Your task to perform on an android device: Open Google Chrome Image 0: 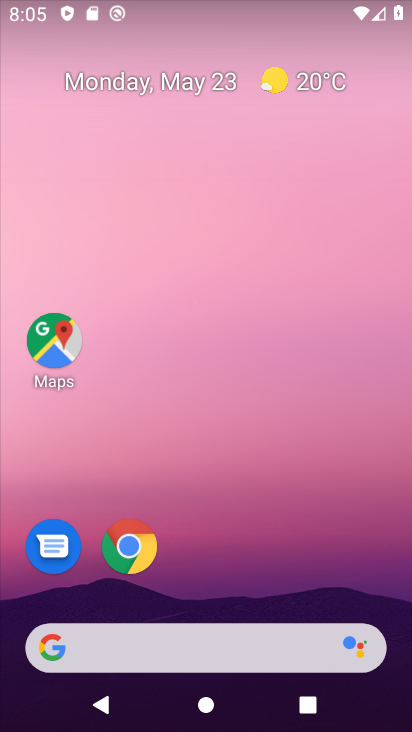
Step 0: drag from (230, 532) to (0, 539)
Your task to perform on an android device: Open Google Chrome Image 1: 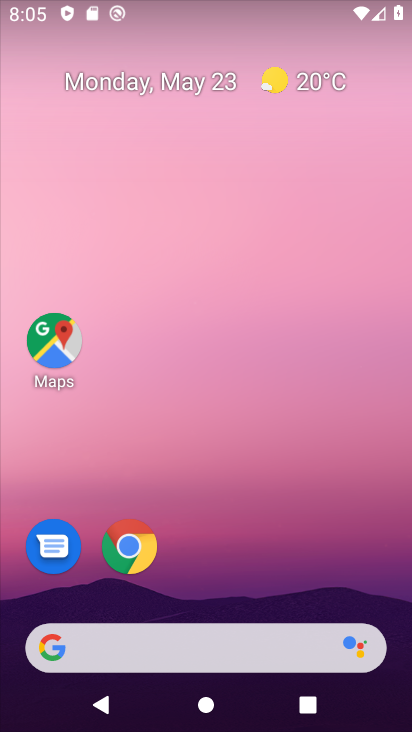
Step 1: drag from (15, 593) to (58, 79)
Your task to perform on an android device: Open Google Chrome Image 2: 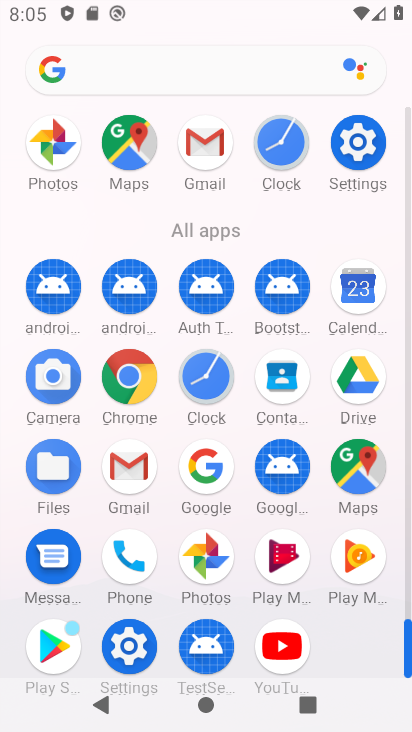
Step 2: click (128, 372)
Your task to perform on an android device: Open Google Chrome Image 3: 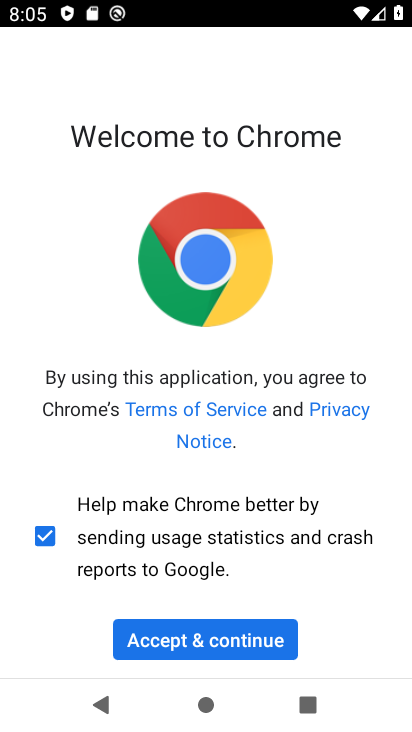
Step 3: click (205, 641)
Your task to perform on an android device: Open Google Chrome Image 4: 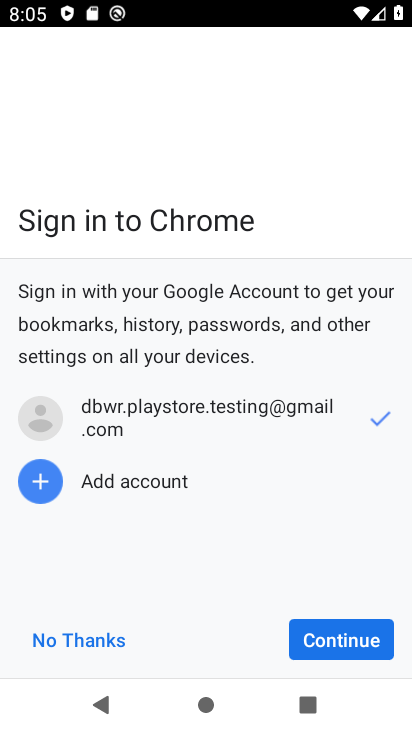
Step 4: click (324, 642)
Your task to perform on an android device: Open Google Chrome Image 5: 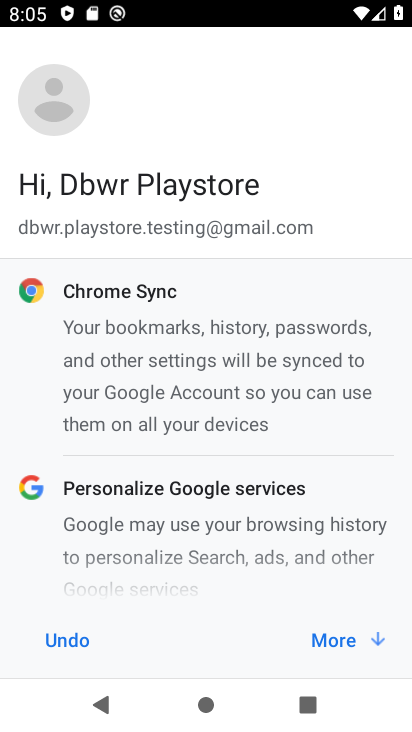
Step 5: click (341, 633)
Your task to perform on an android device: Open Google Chrome Image 6: 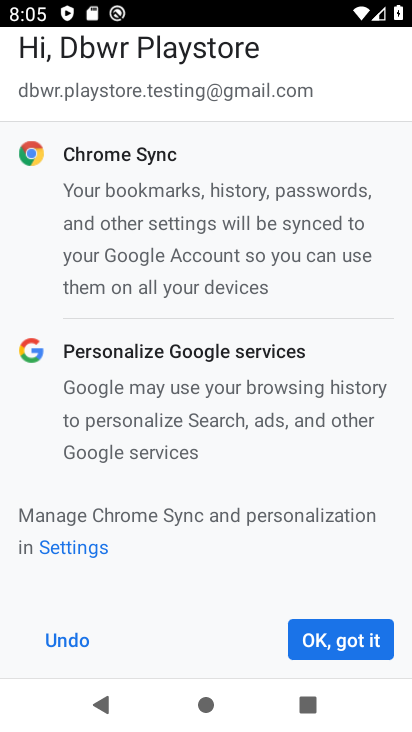
Step 6: click (338, 646)
Your task to perform on an android device: Open Google Chrome Image 7: 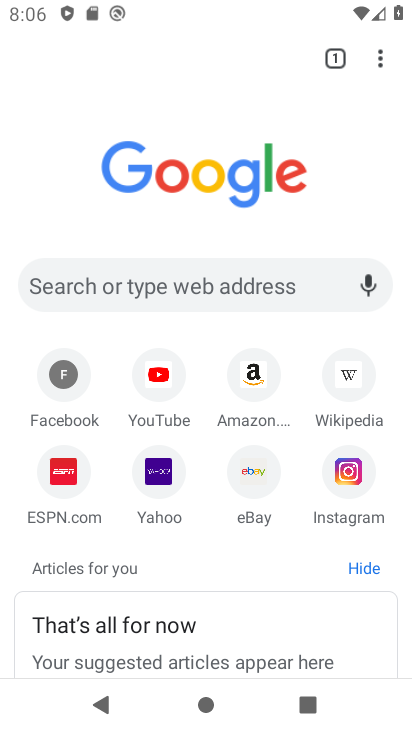
Step 7: task complete